Your task to perform on an android device: turn on the 12-hour format for clock Image 0: 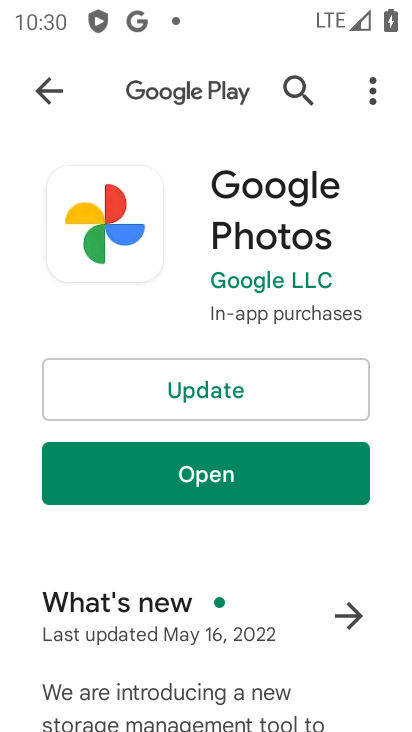
Step 0: press home button
Your task to perform on an android device: turn on the 12-hour format for clock Image 1: 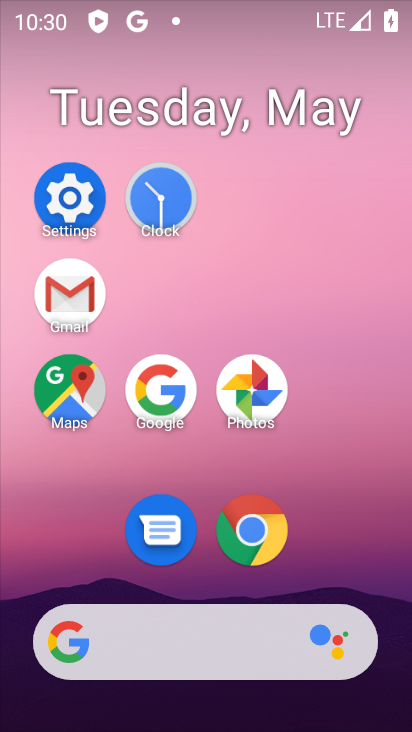
Step 1: click (184, 198)
Your task to perform on an android device: turn on the 12-hour format for clock Image 2: 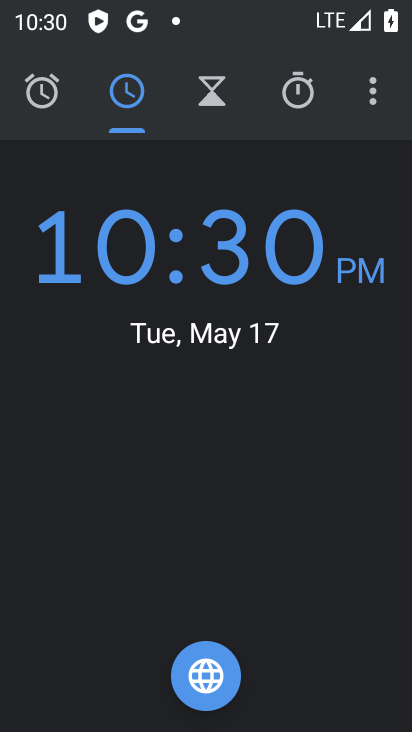
Step 2: click (383, 99)
Your task to perform on an android device: turn on the 12-hour format for clock Image 3: 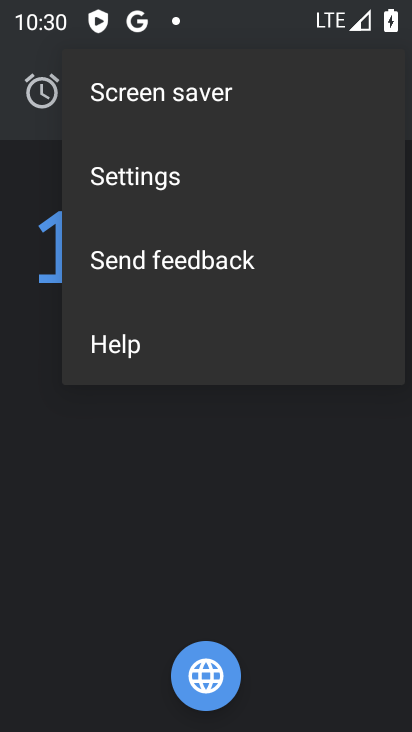
Step 3: click (177, 175)
Your task to perform on an android device: turn on the 12-hour format for clock Image 4: 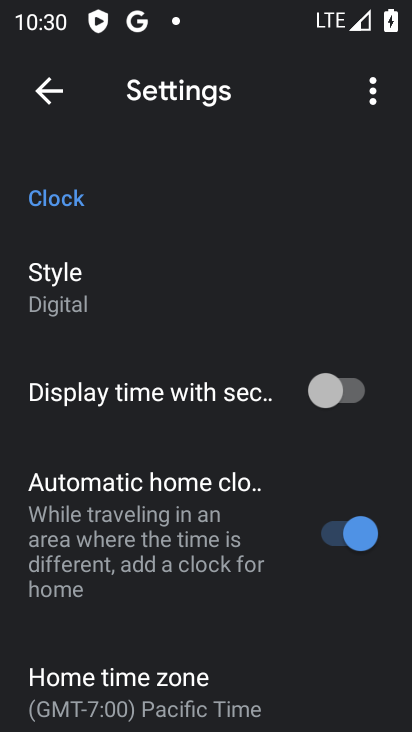
Step 4: drag from (239, 612) to (209, 273)
Your task to perform on an android device: turn on the 12-hour format for clock Image 5: 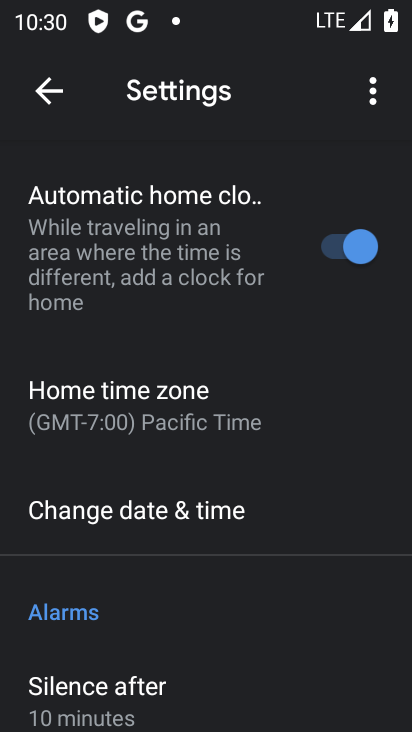
Step 5: click (137, 520)
Your task to perform on an android device: turn on the 12-hour format for clock Image 6: 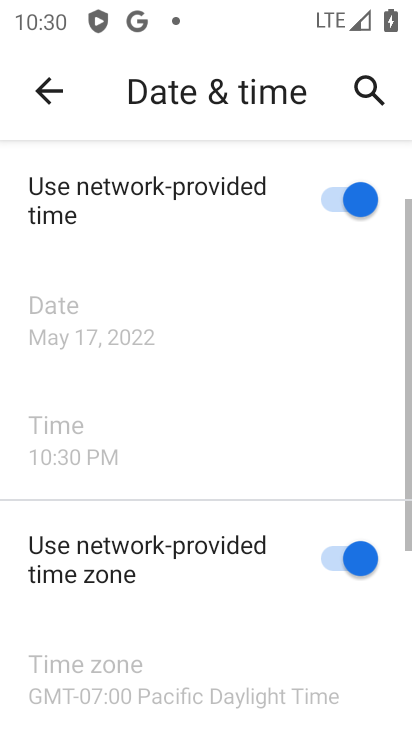
Step 6: task complete